Your task to perform on an android device: Open eBay Image 0: 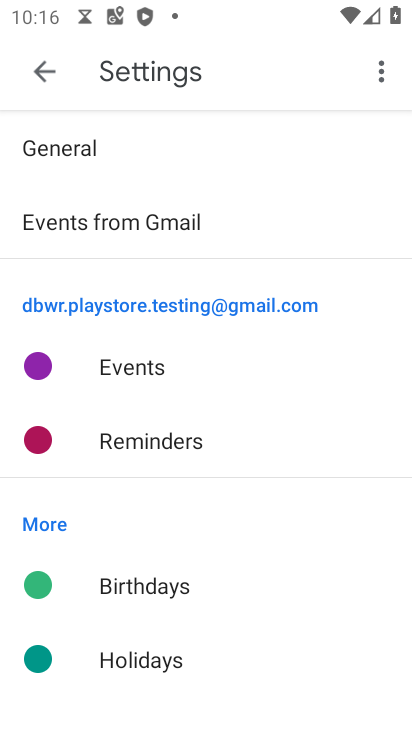
Step 0: press back button
Your task to perform on an android device: Open eBay Image 1: 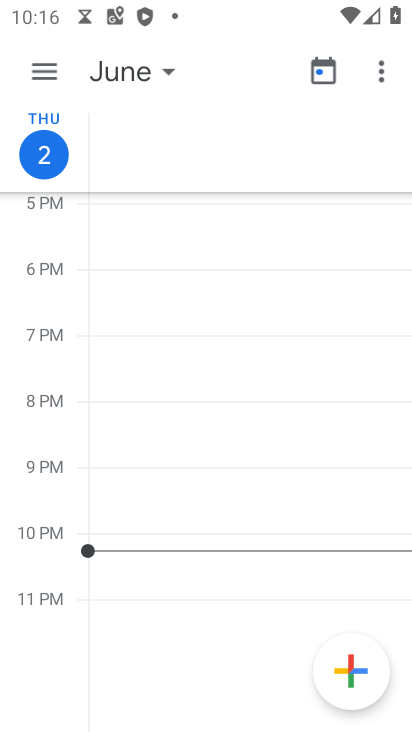
Step 1: press back button
Your task to perform on an android device: Open eBay Image 2: 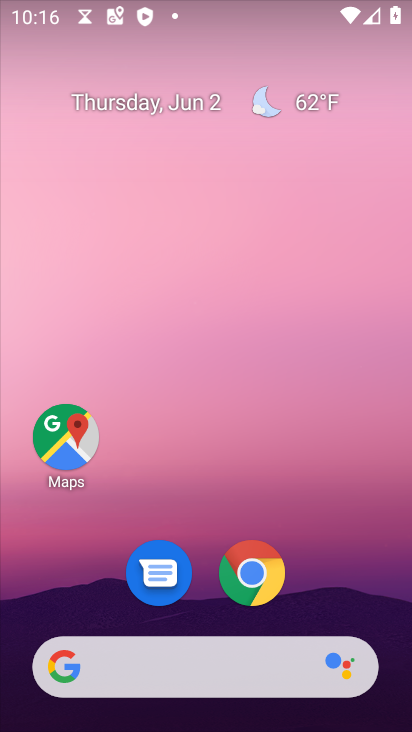
Step 2: click (252, 574)
Your task to perform on an android device: Open eBay Image 3: 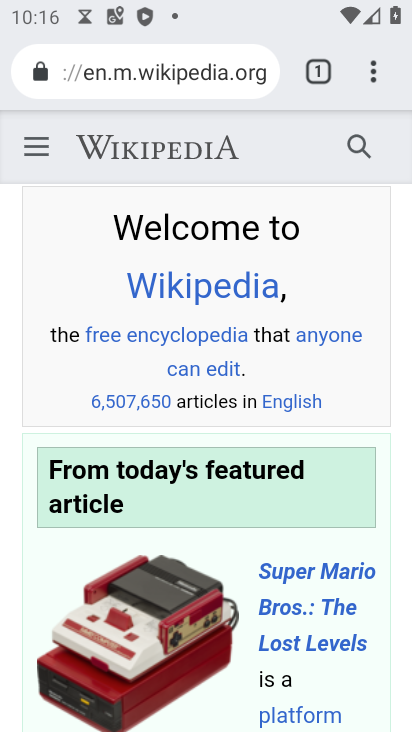
Step 3: click (248, 67)
Your task to perform on an android device: Open eBay Image 4: 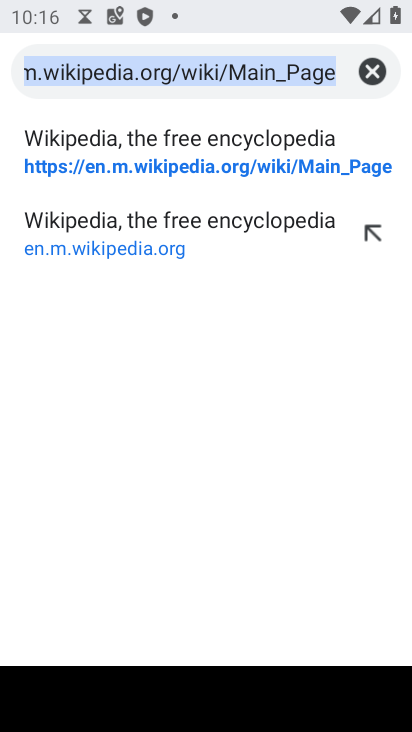
Step 4: click (366, 70)
Your task to perform on an android device: Open eBay Image 5: 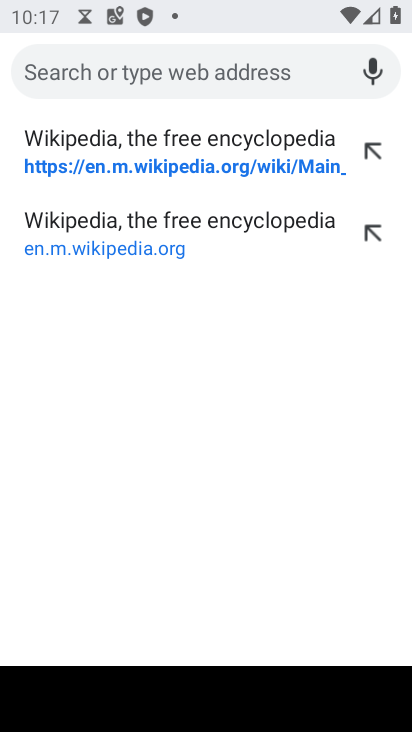
Step 5: type "eBay"
Your task to perform on an android device: Open eBay Image 6: 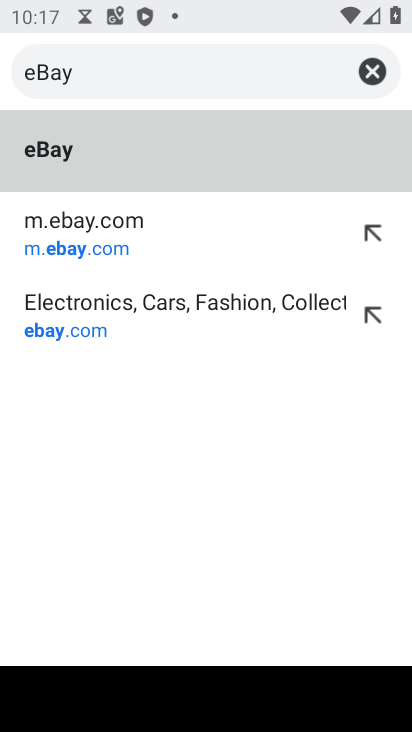
Step 6: click (96, 307)
Your task to perform on an android device: Open eBay Image 7: 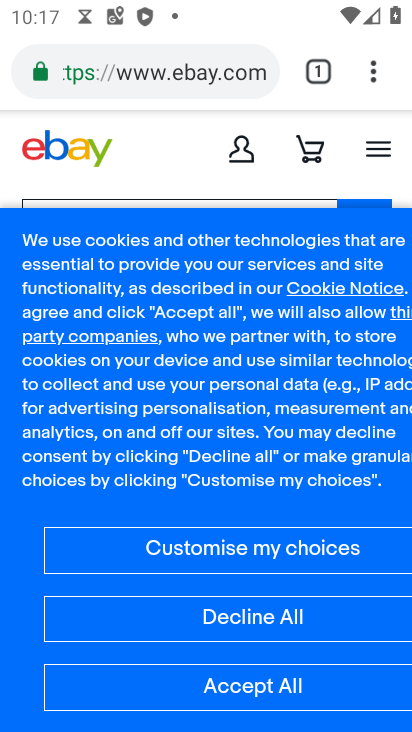
Step 7: task complete